Your task to perform on an android device: see creations saved in the google photos Image 0: 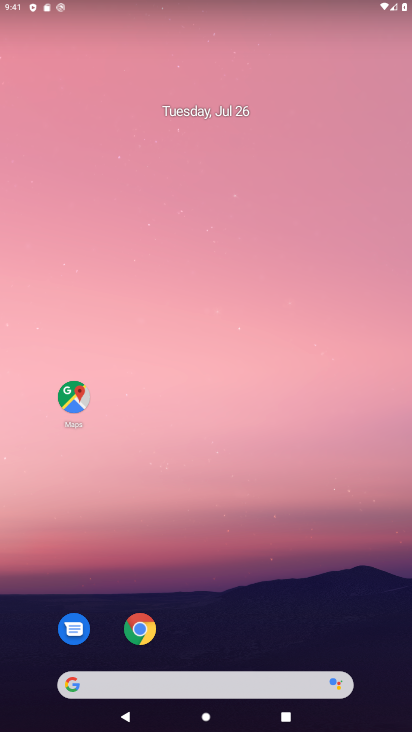
Step 0: drag from (228, 650) to (339, 66)
Your task to perform on an android device: see creations saved in the google photos Image 1: 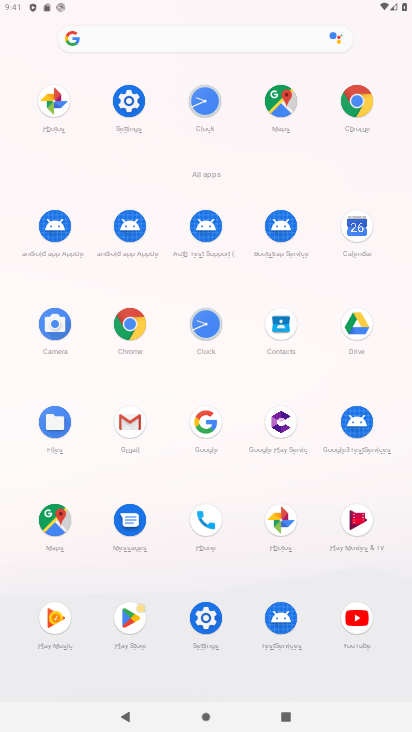
Step 1: click (274, 529)
Your task to perform on an android device: see creations saved in the google photos Image 2: 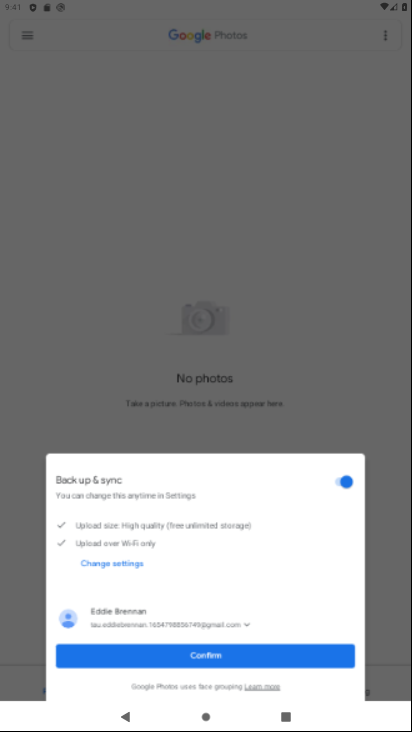
Step 2: task complete